Your task to perform on an android device: Go to Maps Image 0: 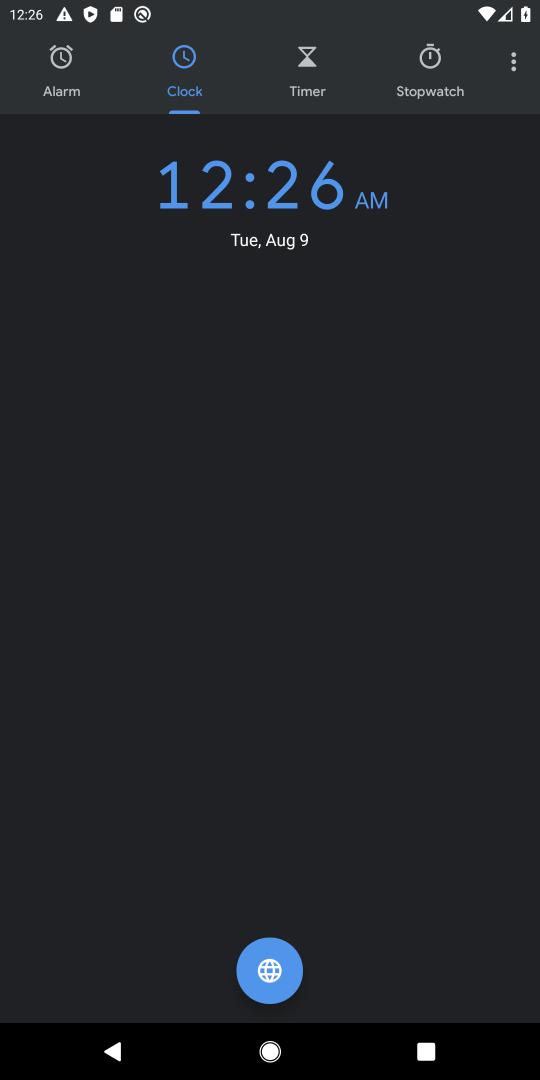
Step 0: press home button
Your task to perform on an android device: Go to Maps Image 1: 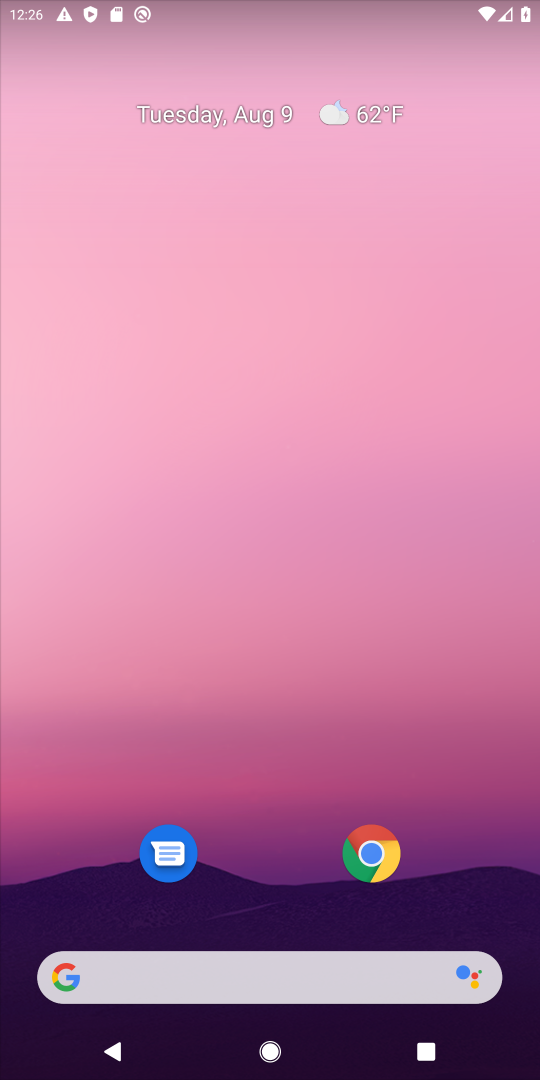
Step 1: drag from (287, 891) to (367, 210)
Your task to perform on an android device: Go to Maps Image 2: 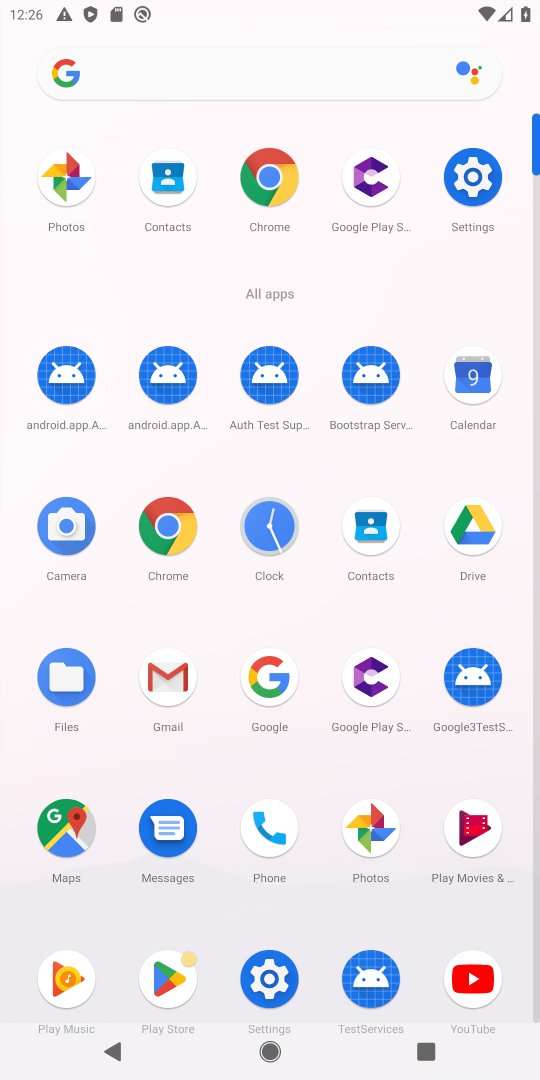
Step 2: click (372, 827)
Your task to perform on an android device: Go to Maps Image 3: 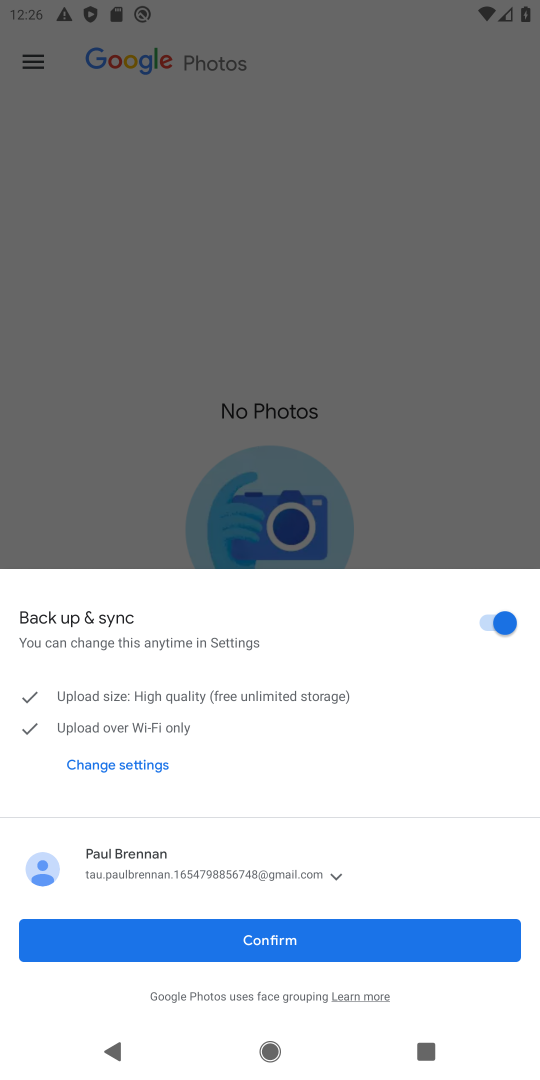
Step 3: click (239, 941)
Your task to perform on an android device: Go to Maps Image 4: 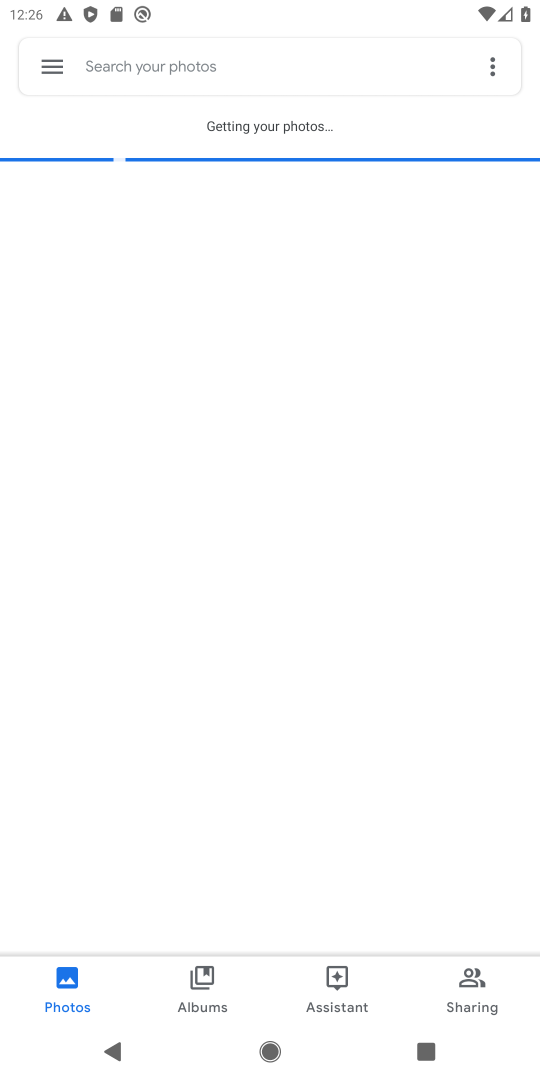
Step 4: press home button
Your task to perform on an android device: Go to Maps Image 5: 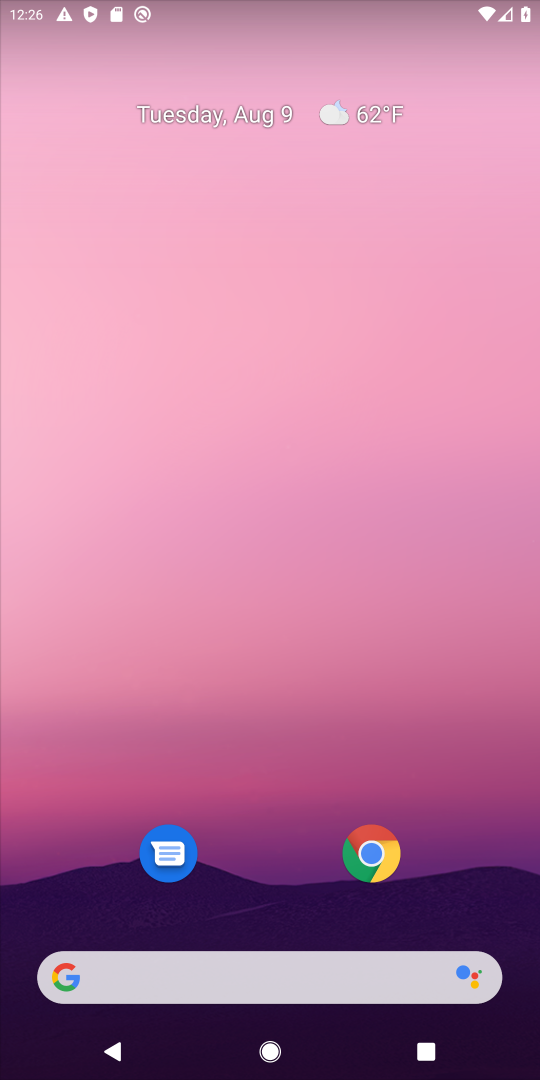
Step 5: drag from (325, 259) to (328, 191)
Your task to perform on an android device: Go to Maps Image 6: 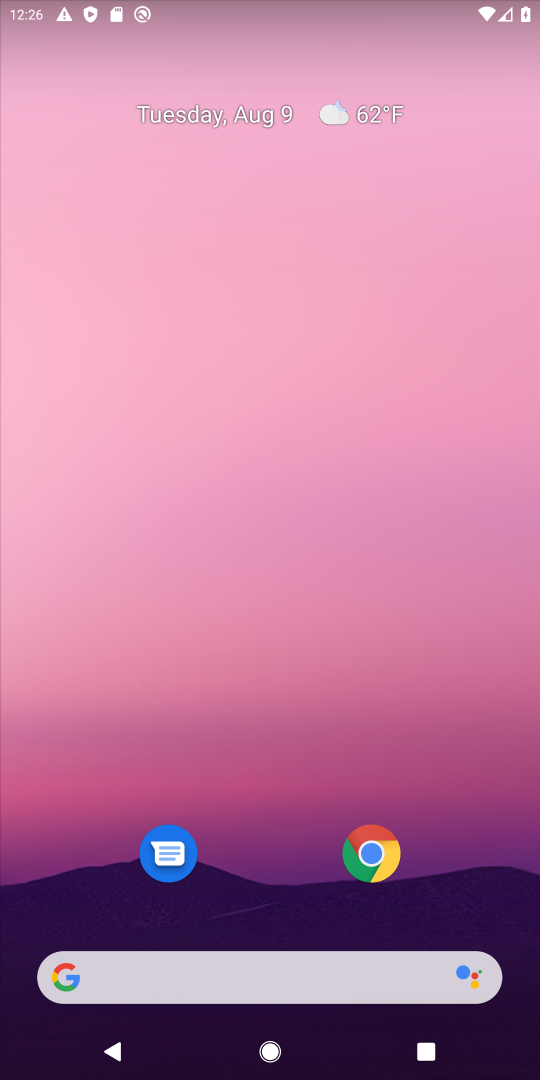
Step 6: drag from (241, 599) to (278, 4)
Your task to perform on an android device: Go to Maps Image 7: 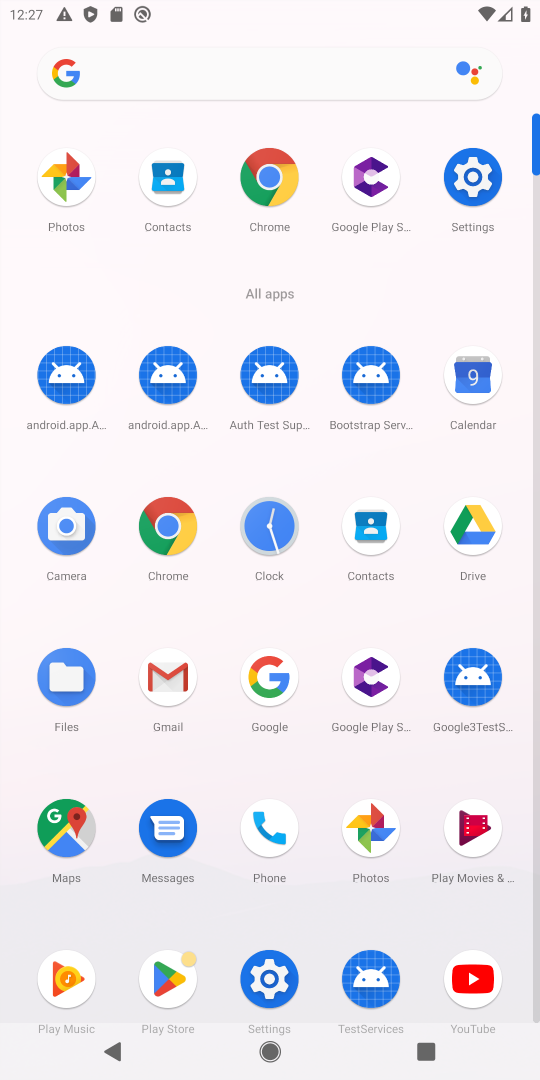
Step 7: click (60, 835)
Your task to perform on an android device: Go to Maps Image 8: 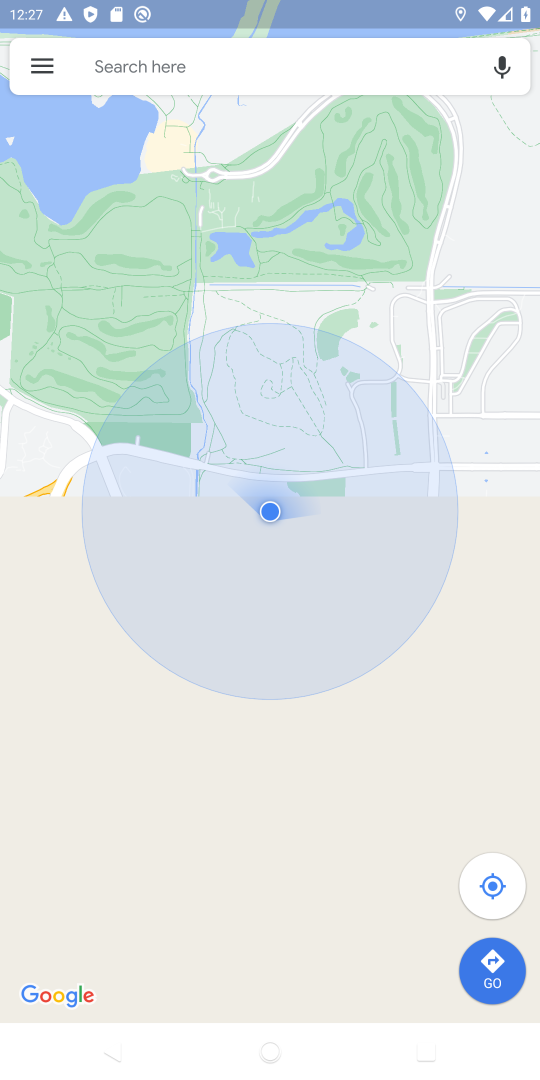
Step 8: click (500, 881)
Your task to perform on an android device: Go to Maps Image 9: 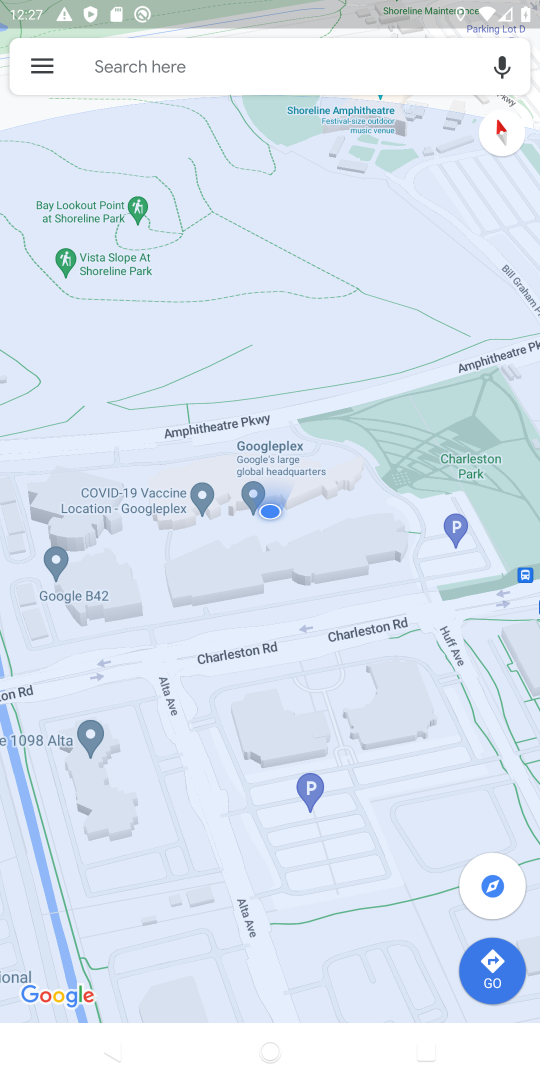
Step 9: task complete